Your task to perform on an android device: turn on wifi Image 0: 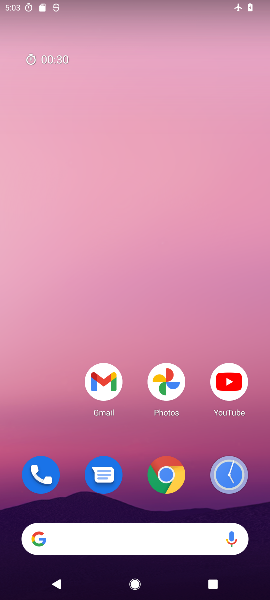
Step 0: drag from (62, 426) to (51, 185)
Your task to perform on an android device: turn on wifi Image 1: 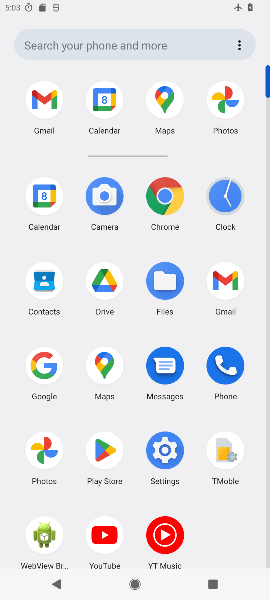
Step 1: click (165, 460)
Your task to perform on an android device: turn on wifi Image 2: 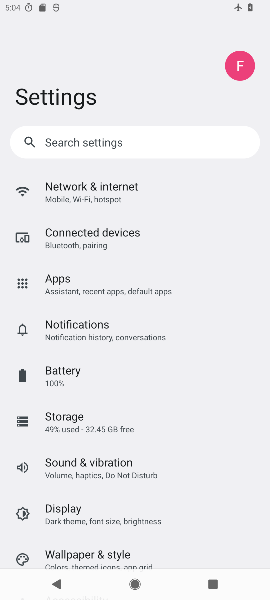
Step 2: drag from (211, 448) to (215, 298)
Your task to perform on an android device: turn on wifi Image 3: 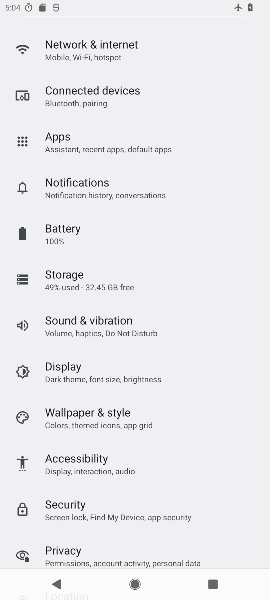
Step 3: drag from (217, 467) to (219, 350)
Your task to perform on an android device: turn on wifi Image 4: 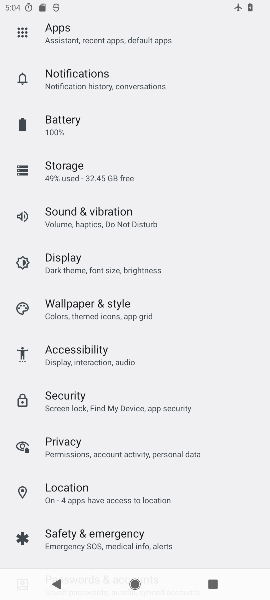
Step 4: drag from (232, 489) to (240, 386)
Your task to perform on an android device: turn on wifi Image 5: 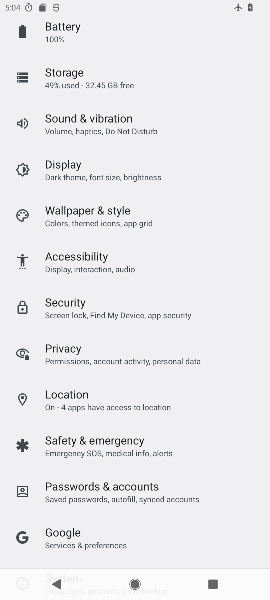
Step 5: drag from (234, 483) to (224, 362)
Your task to perform on an android device: turn on wifi Image 6: 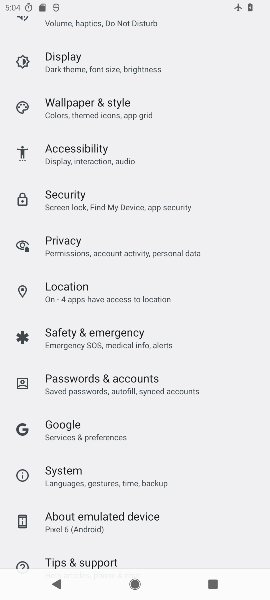
Step 6: drag from (226, 455) to (229, 344)
Your task to perform on an android device: turn on wifi Image 7: 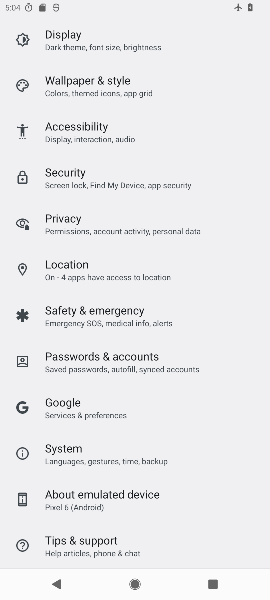
Step 7: drag from (230, 486) to (221, 332)
Your task to perform on an android device: turn on wifi Image 8: 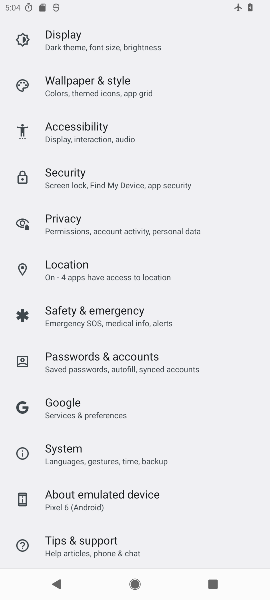
Step 8: drag from (216, 242) to (216, 337)
Your task to perform on an android device: turn on wifi Image 9: 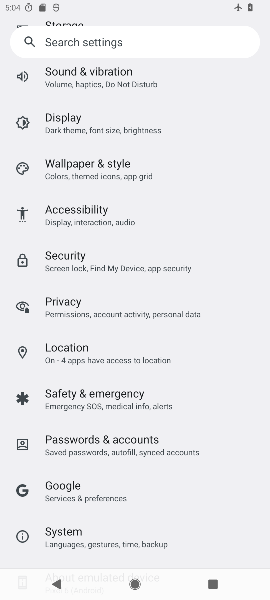
Step 9: drag from (224, 190) to (226, 315)
Your task to perform on an android device: turn on wifi Image 10: 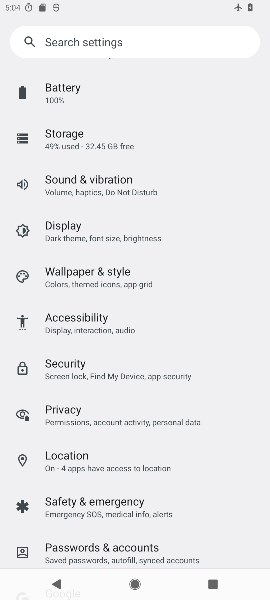
Step 10: drag from (228, 161) to (229, 314)
Your task to perform on an android device: turn on wifi Image 11: 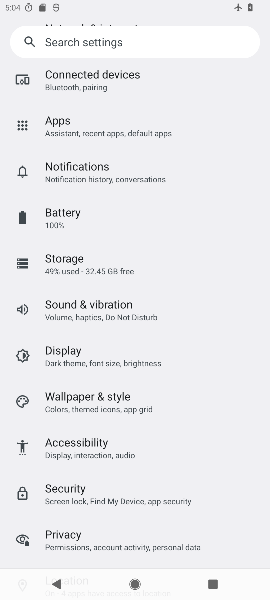
Step 11: drag from (223, 171) to (226, 339)
Your task to perform on an android device: turn on wifi Image 12: 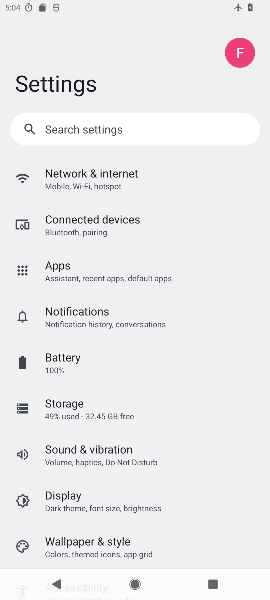
Step 12: drag from (220, 177) to (226, 345)
Your task to perform on an android device: turn on wifi Image 13: 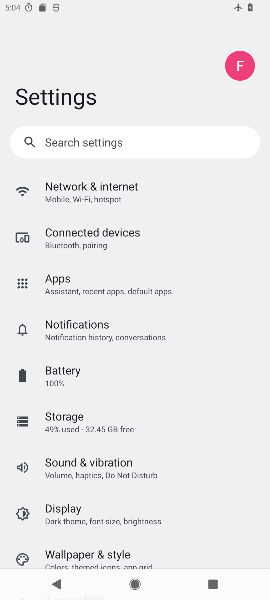
Step 13: click (114, 193)
Your task to perform on an android device: turn on wifi Image 14: 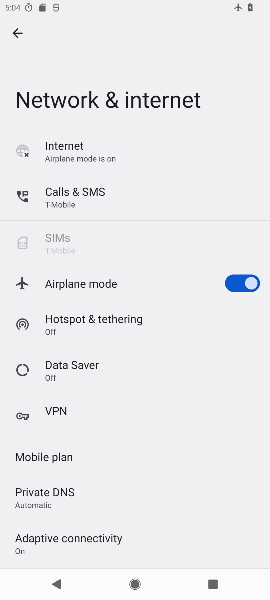
Step 14: click (101, 147)
Your task to perform on an android device: turn on wifi Image 15: 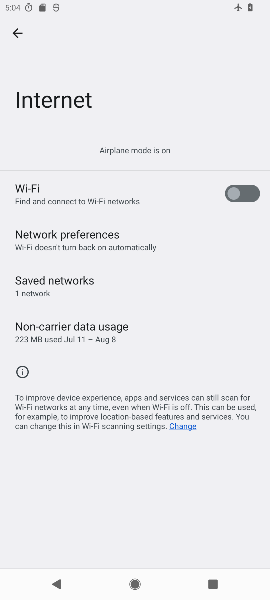
Step 15: click (238, 192)
Your task to perform on an android device: turn on wifi Image 16: 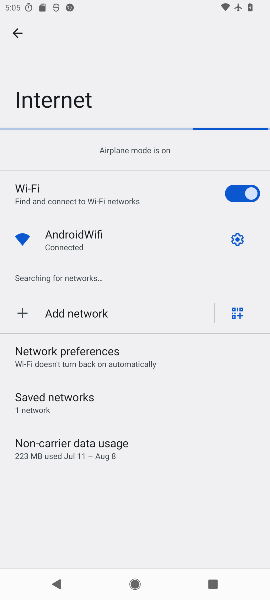
Step 16: task complete